Your task to perform on an android device: Go to notification settings Image 0: 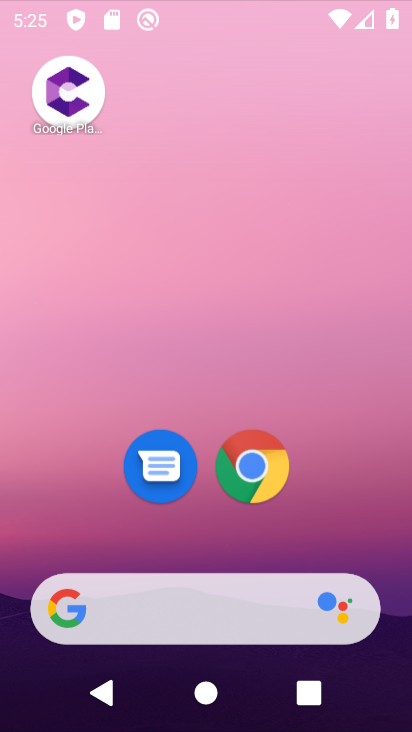
Step 0: click (392, 160)
Your task to perform on an android device: Go to notification settings Image 1: 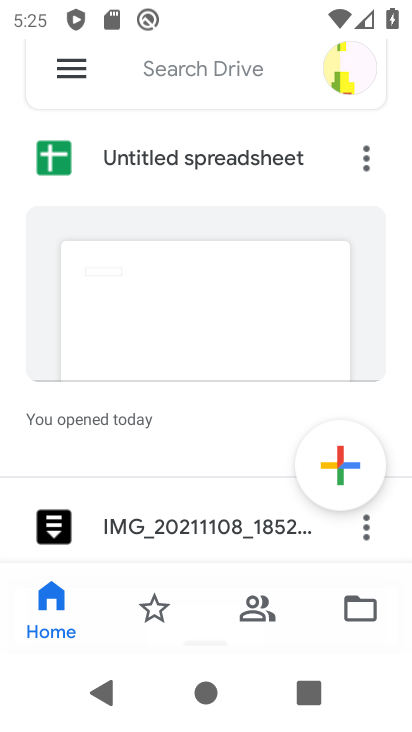
Step 1: press home button
Your task to perform on an android device: Go to notification settings Image 2: 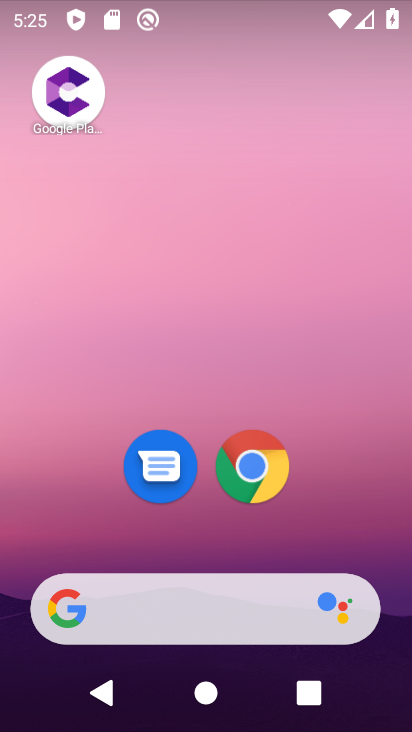
Step 2: drag from (383, 234) to (382, 99)
Your task to perform on an android device: Go to notification settings Image 3: 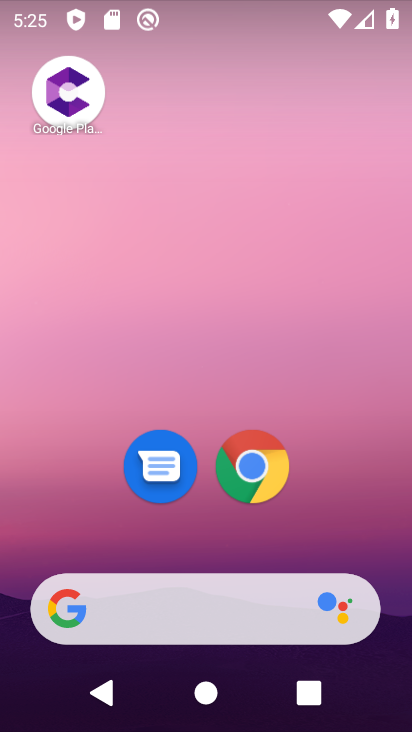
Step 3: drag from (383, 609) to (386, 94)
Your task to perform on an android device: Go to notification settings Image 4: 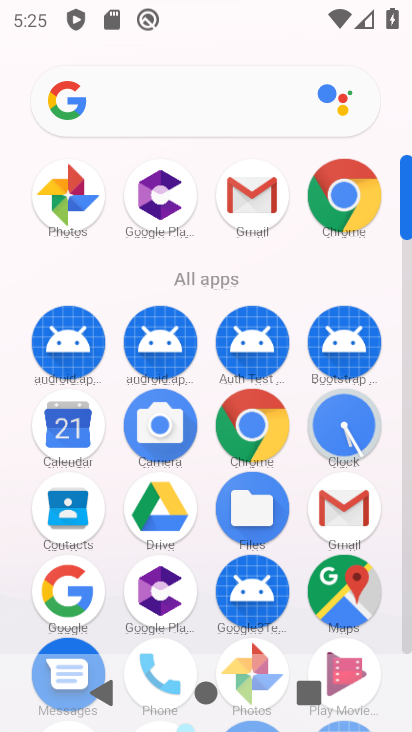
Step 4: drag from (205, 619) to (215, 253)
Your task to perform on an android device: Go to notification settings Image 5: 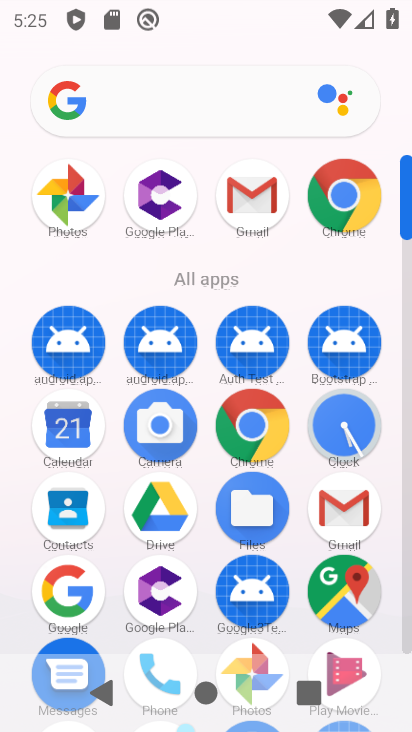
Step 5: drag from (409, 173) to (410, 84)
Your task to perform on an android device: Go to notification settings Image 6: 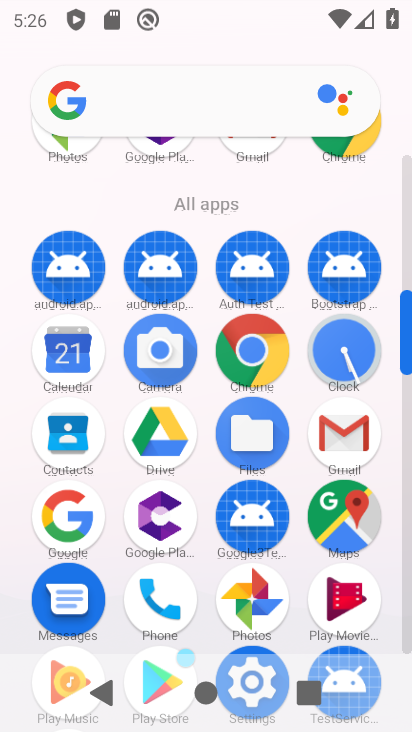
Step 6: drag from (408, 180) to (405, 98)
Your task to perform on an android device: Go to notification settings Image 7: 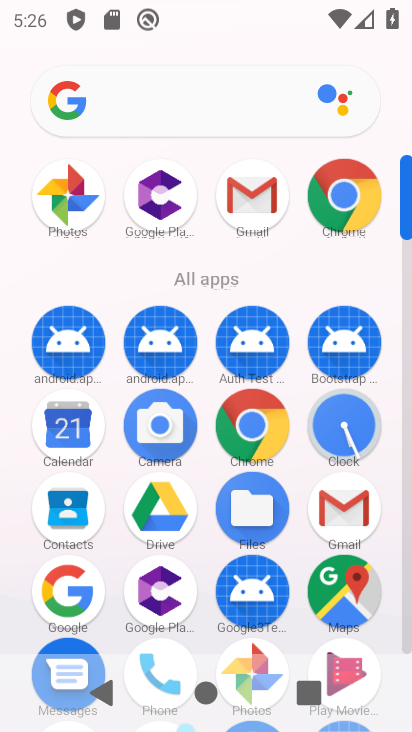
Step 7: drag from (411, 87) to (411, 47)
Your task to perform on an android device: Go to notification settings Image 8: 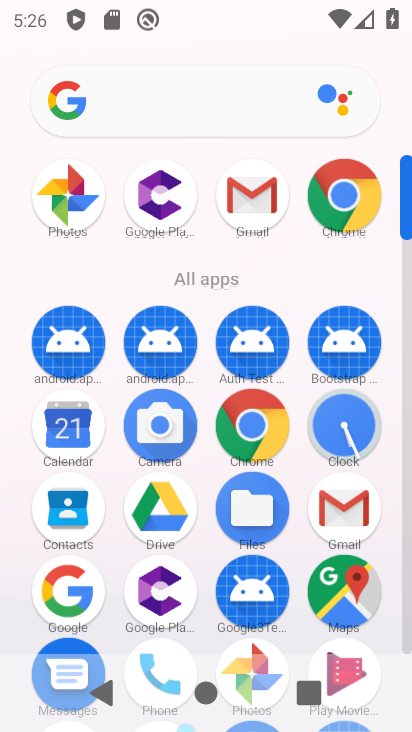
Step 8: drag from (404, 196) to (404, 68)
Your task to perform on an android device: Go to notification settings Image 9: 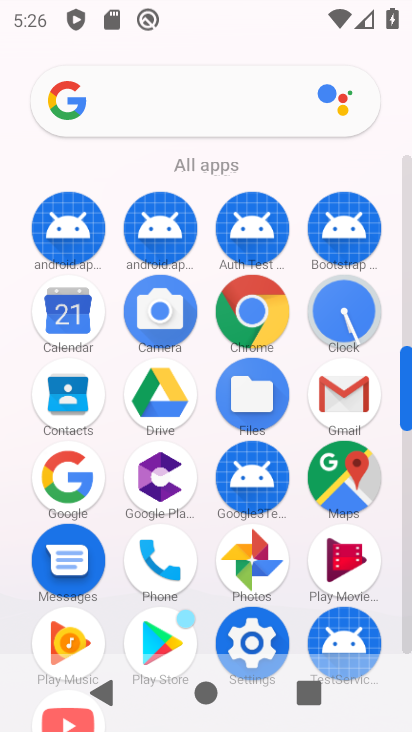
Step 9: click (254, 622)
Your task to perform on an android device: Go to notification settings Image 10: 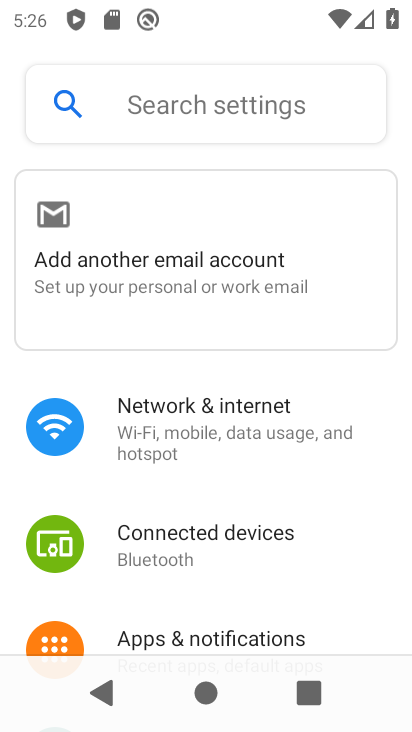
Step 10: click (186, 635)
Your task to perform on an android device: Go to notification settings Image 11: 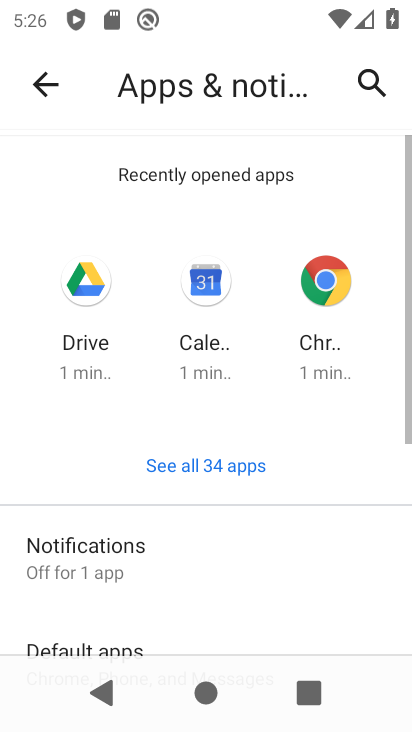
Step 11: drag from (298, 585) to (322, 276)
Your task to perform on an android device: Go to notification settings Image 12: 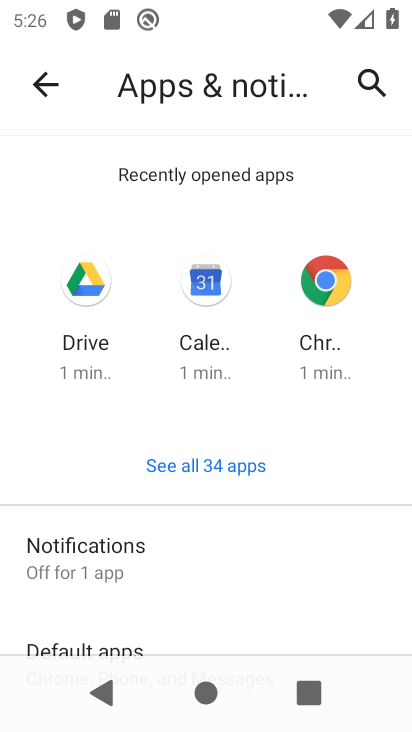
Step 12: click (68, 546)
Your task to perform on an android device: Go to notification settings Image 13: 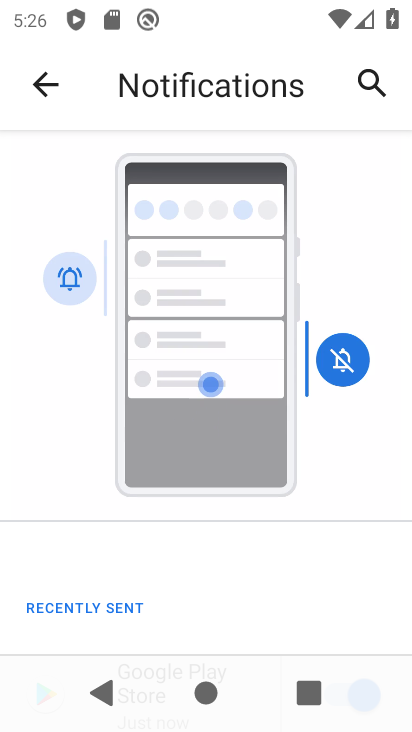
Step 13: drag from (271, 619) to (263, 220)
Your task to perform on an android device: Go to notification settings Image 14: 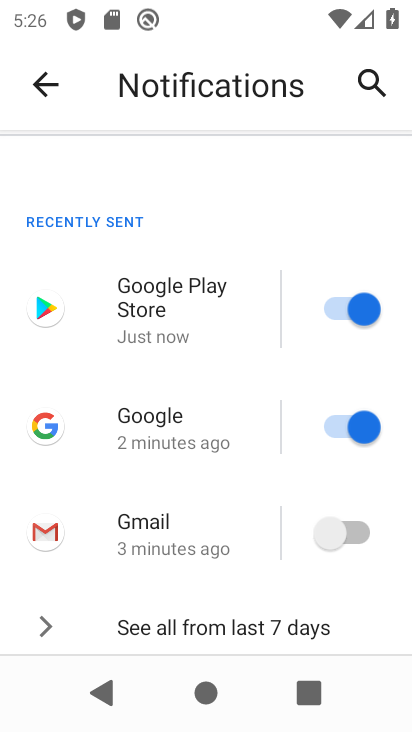
Step 14: drag from (259, 395) to (249, 249)
Your task to perform on an android device: Go to notification settings Image 15: 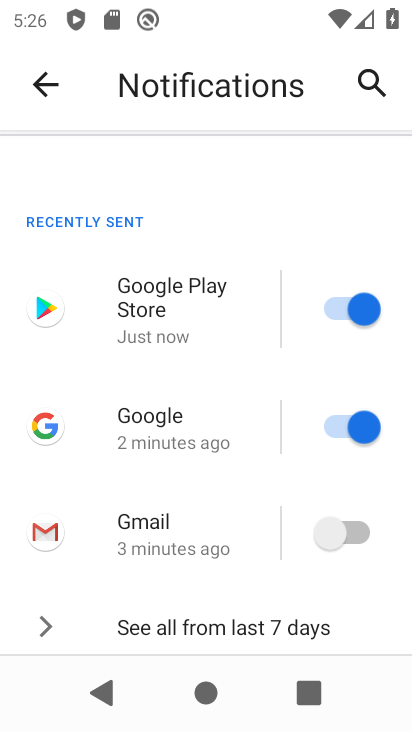
Step 15: drag from (239, 595) to (242, 232)
Your task to perform on an android device: Go to notification settings Image 16: 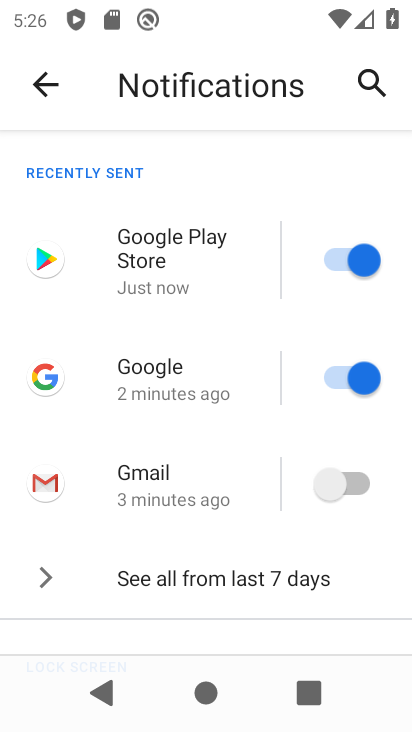
Step 16: click (264, 285)
Your task to perform on an android device: Go to notification settings Image 17: 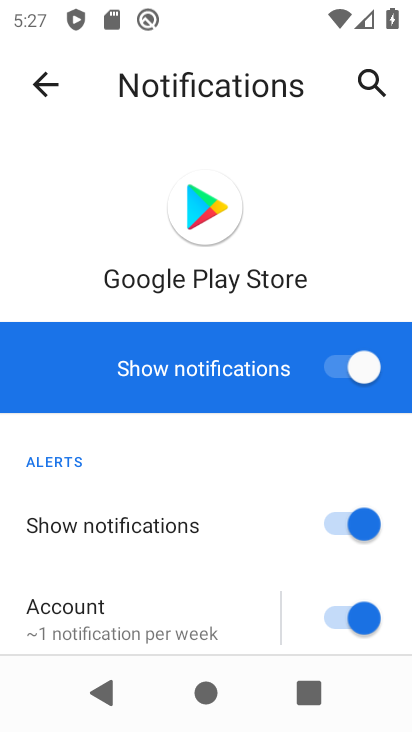
Step 17: task complete